Your task to perform on an android device: Open the stopwatch Image 0: 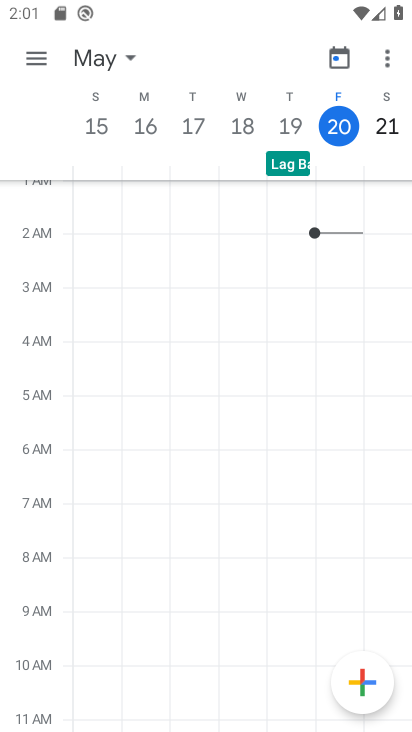
Step 0: drag from (260, 529) to (176, 193)
Your task to perform on an android device: Open the stopwatch Image 1: 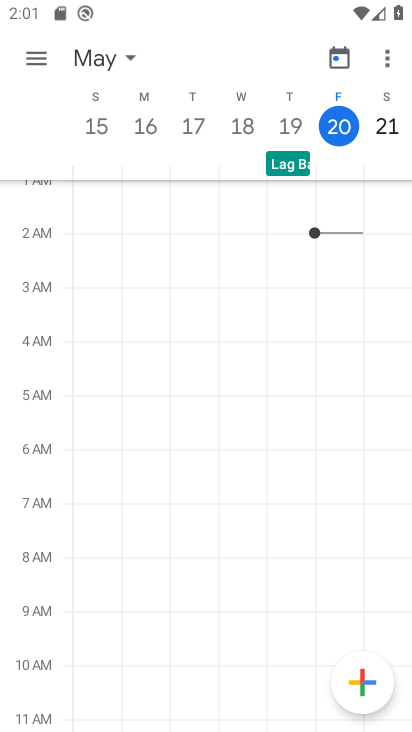
Step 1: press home button
Your task to perform on an android device: Open the stopwatch Image 2: 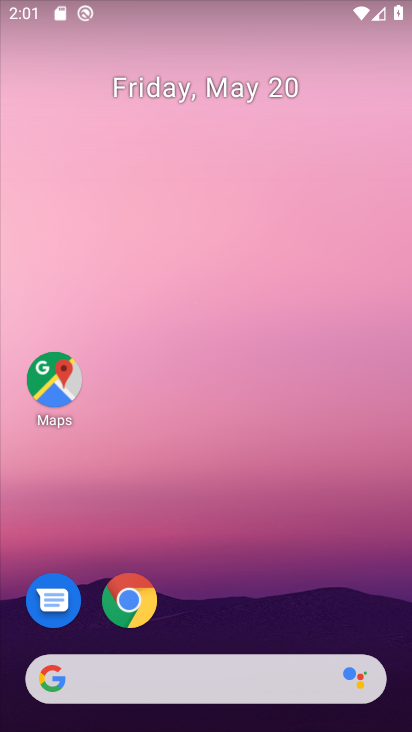
Step 2: drag from (283, 367) to (238, 38)
Your task to perform on an android device: Open the stopwatch Image 3: 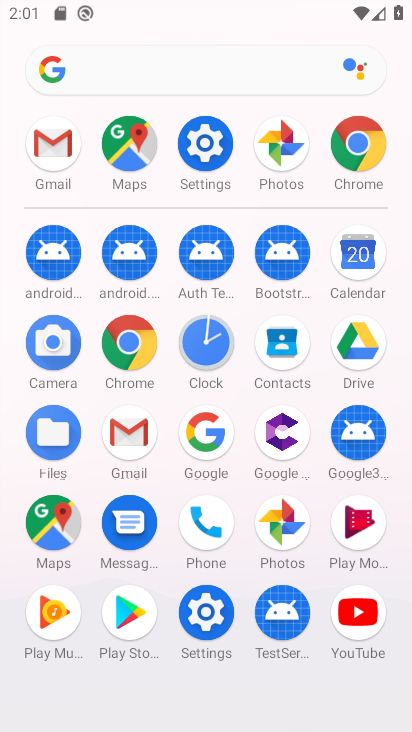
Step 3: click (222, 348)
Your task to perform on an android device: Open the stopwatch Image 4: 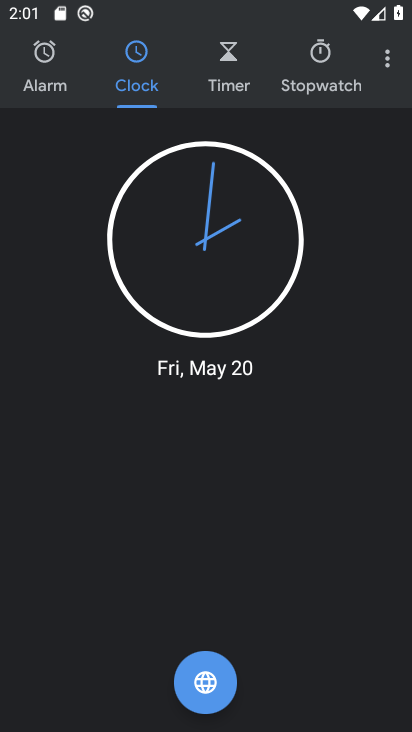
Step 4: click (320, 60)
Your task to perform on an android device: Open the stopwatch Image 5: 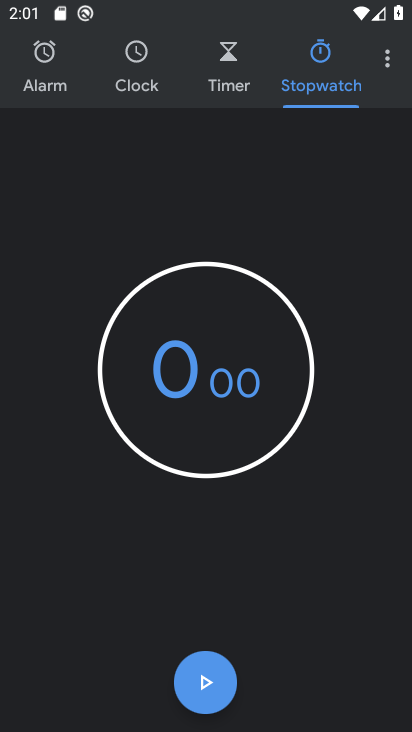
Step 5: task complete